Your task to perform on an android device: What's the weather? Image 0: 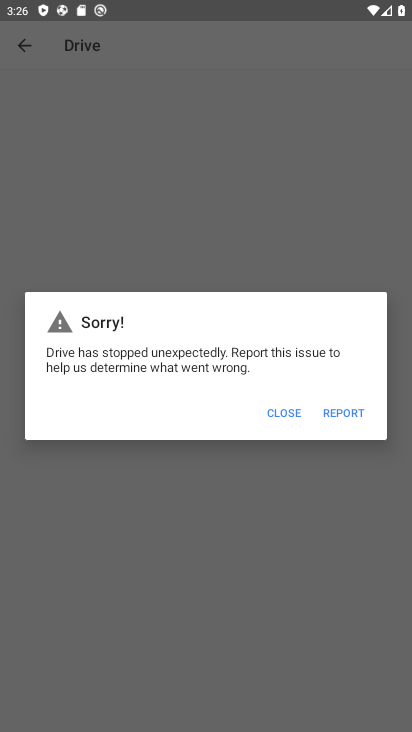
Step 0: press home button
Your task to perform on an android device: What's the weather? Image 1: 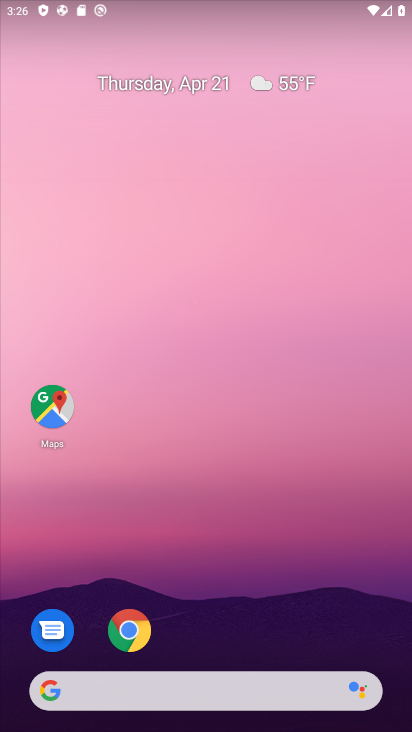
Step 1: click (295, 82)
Your task to perform on an android device: What's the weather? Image 2: 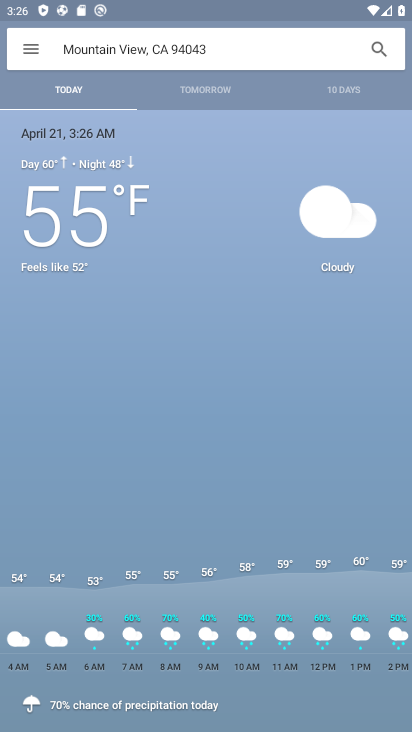
Step 2: task complete